Your task to perform on an android device: Open Chrome and go to settings Image 0: 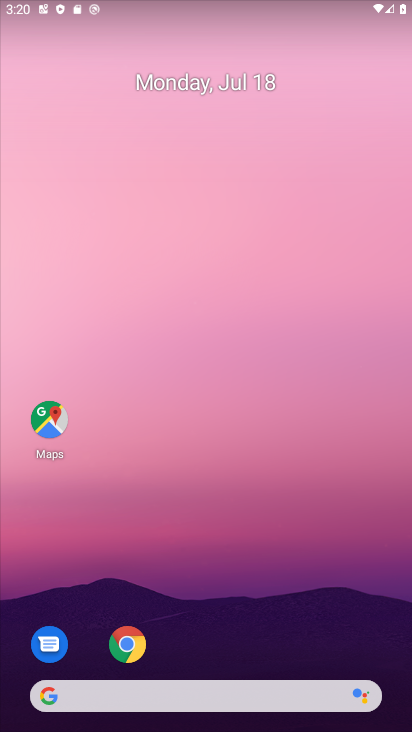
Step 0: click (125, 649)
Your task to perform on an android device: Open Chrome and go to settings Image 1: 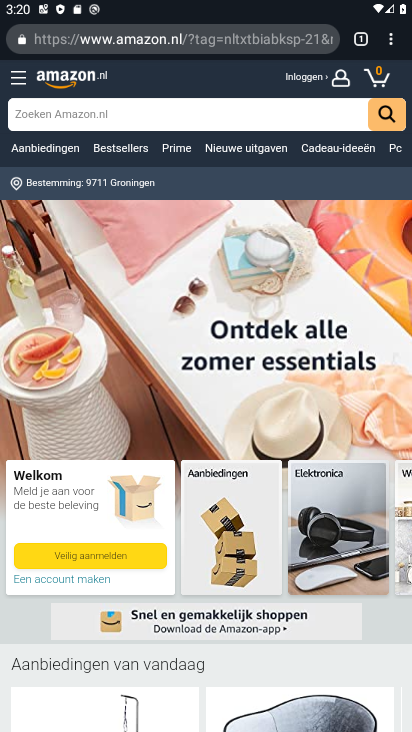
Step 1: click (391, 47)
Your task to perform on an android device: Open Chrome and go to settings Image 2: 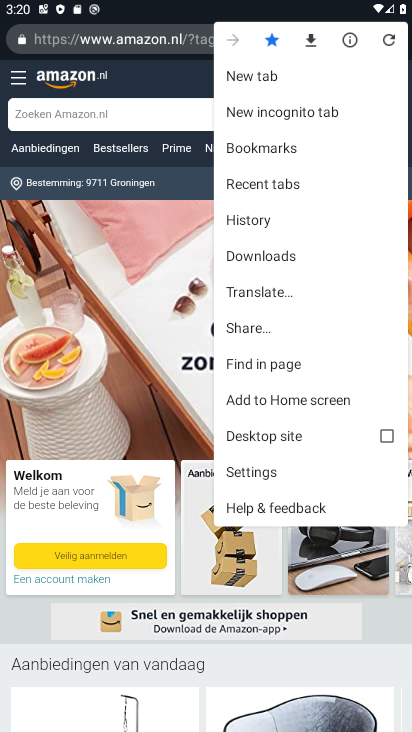
Step 2: click (240, 470)
Your task to perform on an android device: Open Chrome and go to settings Image 3: 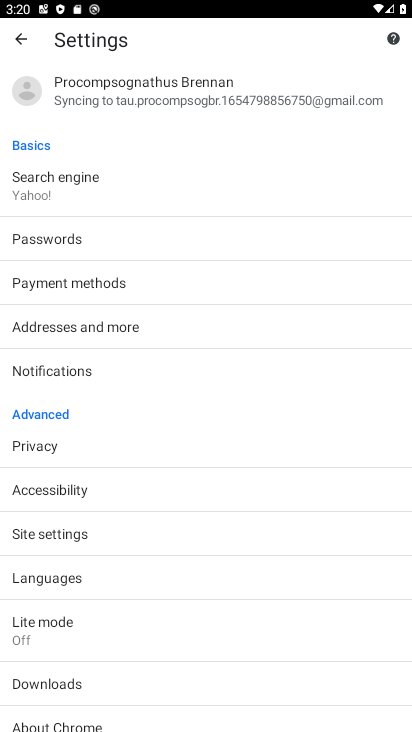
Step 3: task complete